Your task to perform on an android device: Search for vegetarian restaurants on Maps Image 0: 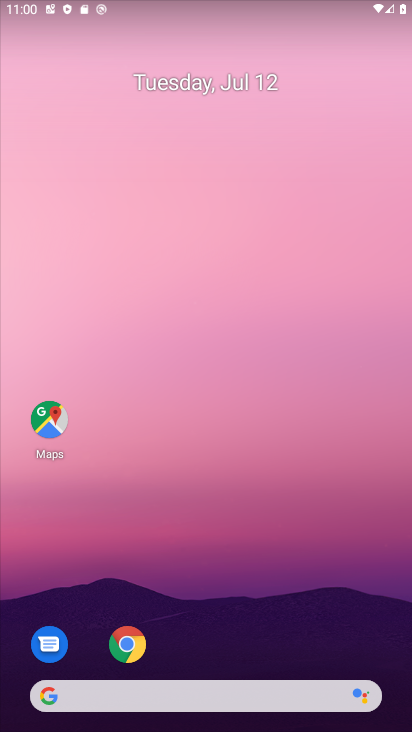
Step 0: click (49, 412)
Your task to perform on an android device: Search for vegetarian restaurants on Maps Image 1: 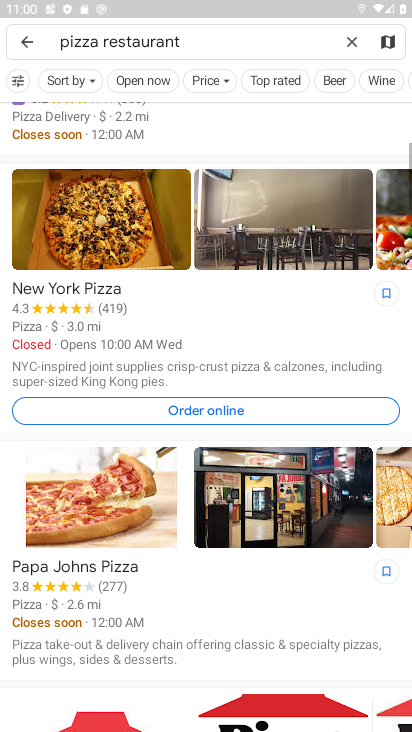
Step 1: click (352, 43)
Your task to perform on an android device: Search for vegetarian restaurants on Maps Image 2: 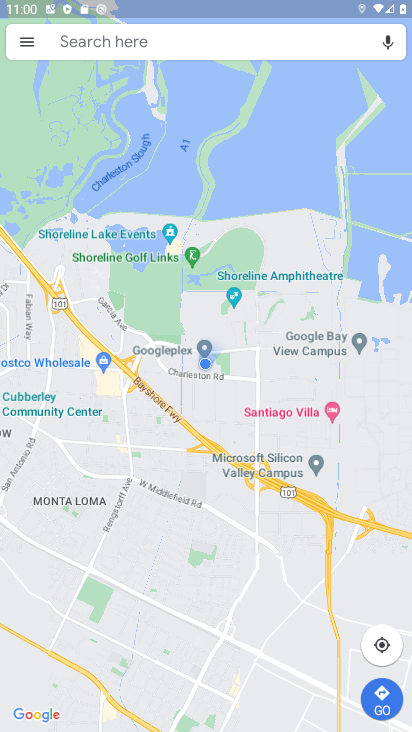
Step 2: click (105, 38)
Your task to perform on an android device: Search for vegetarian restaurants on Maps Image 3: 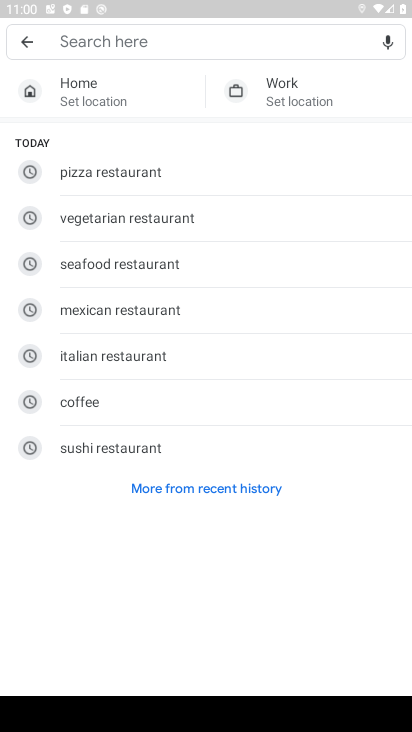
Step 3: click (137, 219)
Your task to perform on an android device: Search for vegetarian restaurants on Maps Image 4: 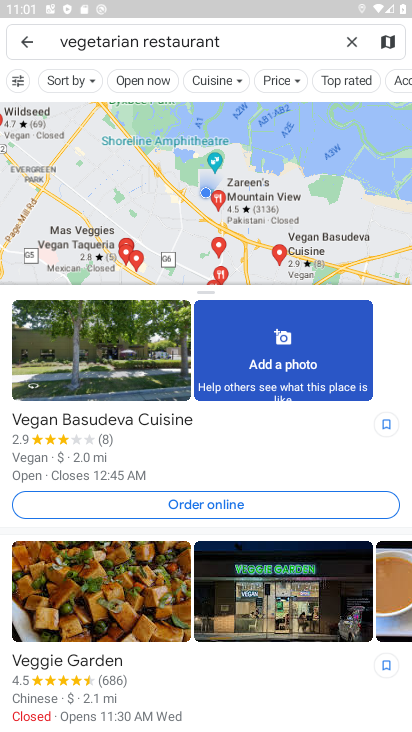
Step 4: task complete